Your task to perform on an android device: toggle notification dots Image 0: 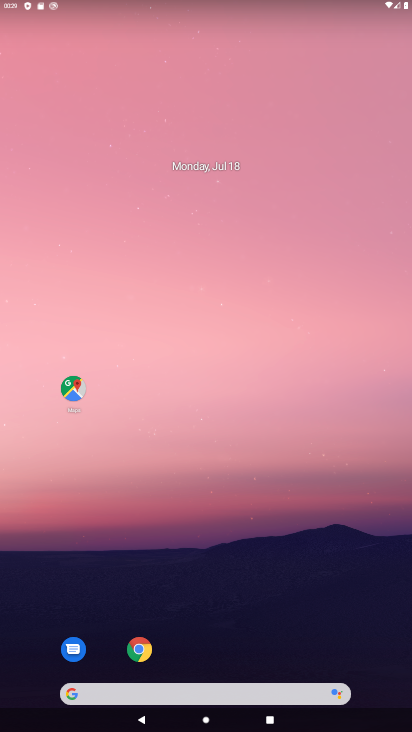
Step 0: drag from (169, 659) to (243, 269)
Your task to perform on an android device: toggle notification dots Image 1: 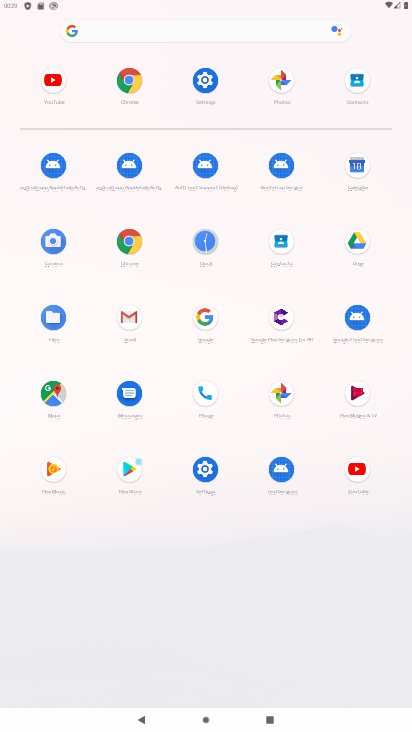
Step 1: click (197, 95)
Your task to perform on an android device: toggle notification dots Image 2: 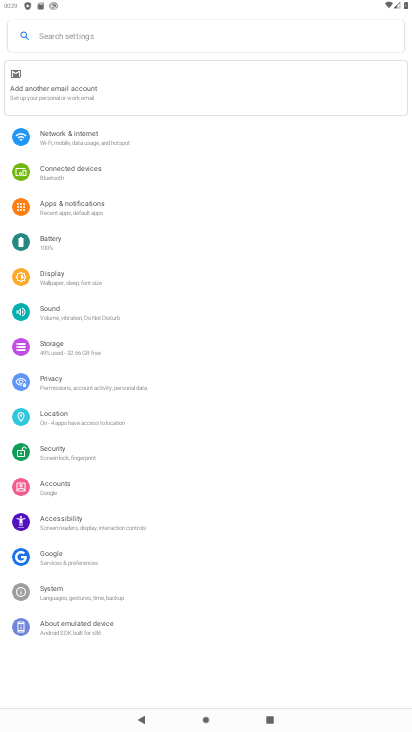
Step 2: click (121, 212)
Your task to perform on an android device: toggle notification dots Image 3: 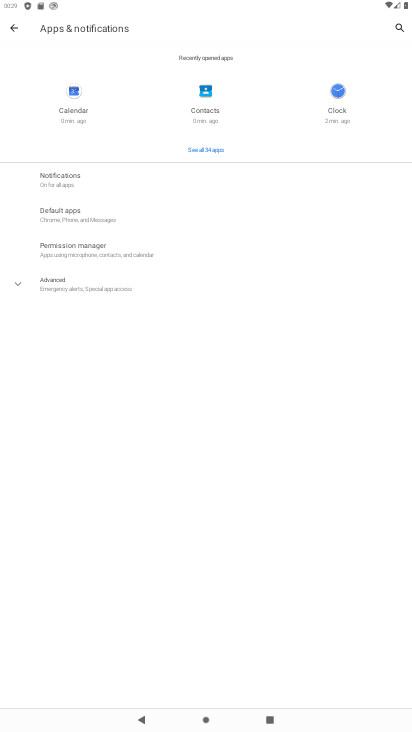
Step 3: click (82, 290)
Your task to perform on an android device: toggle notification dots Image 4: 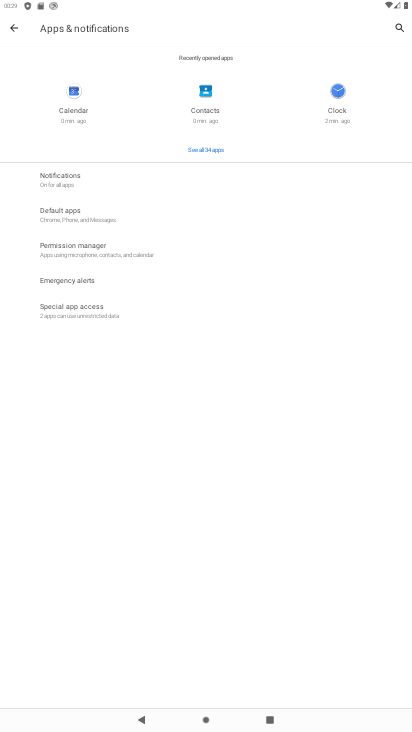
Step 4: click (82, 177)
Your task to perform on an android device: toggle notification dots Image 5: 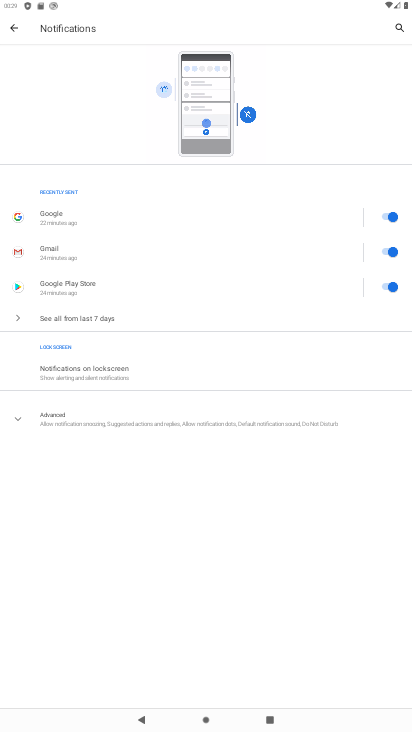
Step 5: click (103, 422)
Your task to perform on an android device: toggle notification dots Image 6: 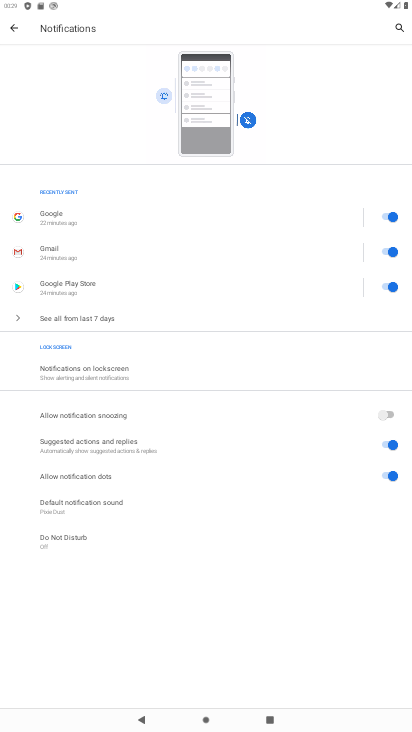
Step 6: click (390, 480)
Your task to perform on an android device: toggle notification dots Image 7: 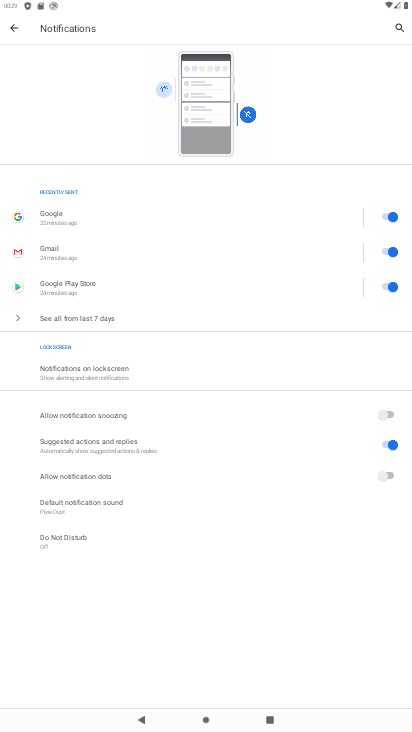
Step 7: task complete